Your task to perform on an android device: change alarm snooze length Image 0: 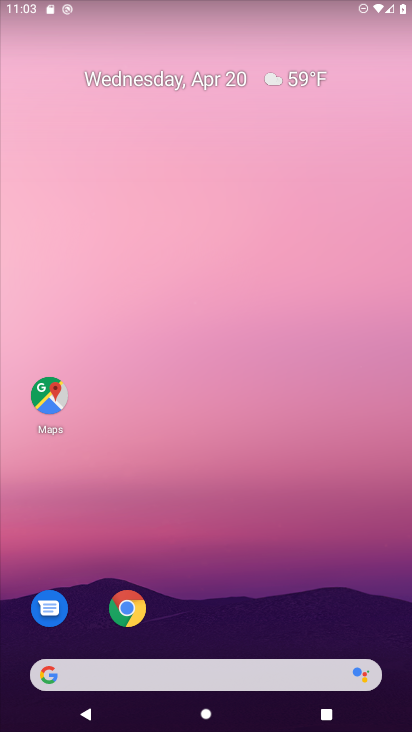
Step 0: drag from (273, 333) to (273, 129)
Your task to perform on an android device: change alarm snooze length Image 1: 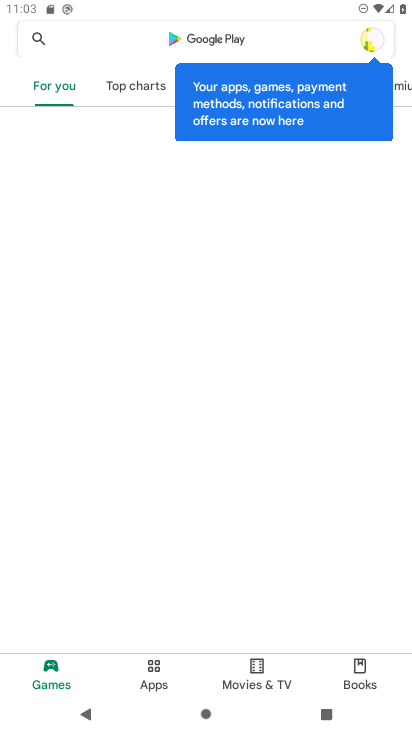
Step 1: press home button
Your task to perform on an android device: change alarm snooze length Image 2: 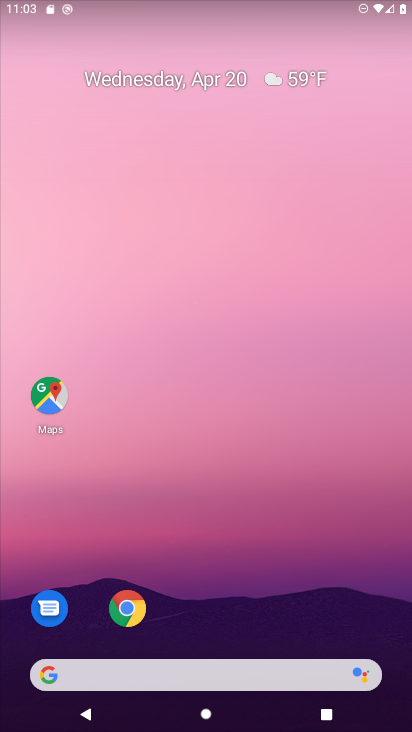
Step 2: drag from (246, 528) to (246, 197)
Your task to perform on an android device: change alarm snooze length Image 3: 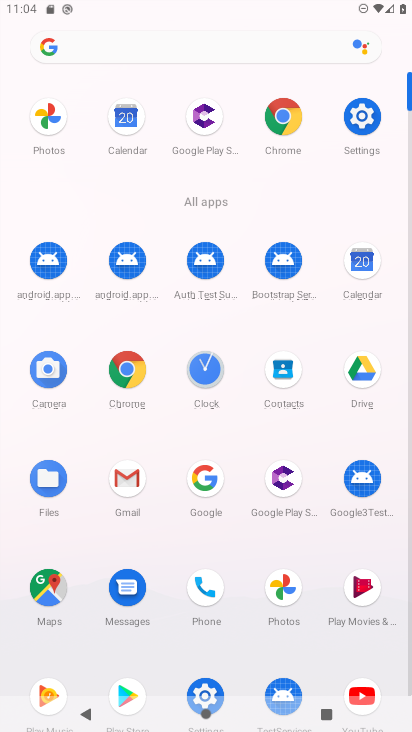
Step 3: click (206, 384)
Your task to perform on an android device: change alarm snooze length Image 4: 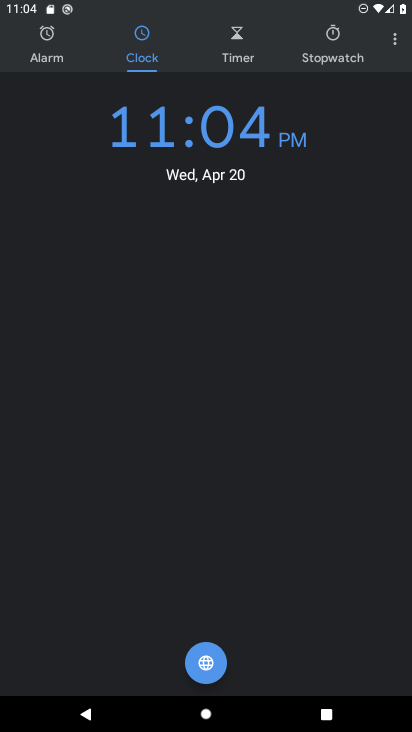
Step 4: click (390, 49)
Your task to perform on an android device: change alarm snooze length Image 5: 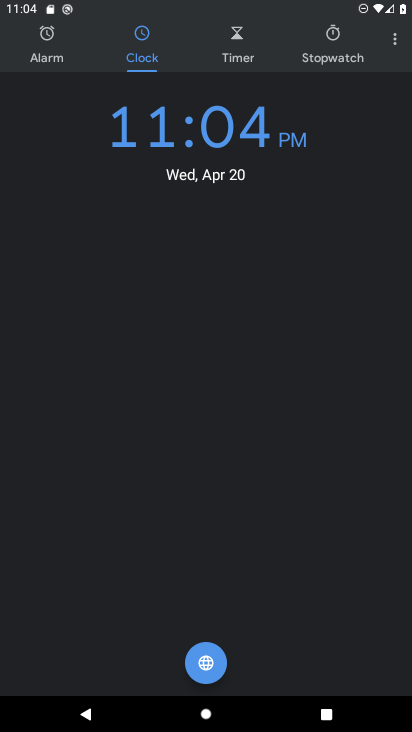
Step 5: click (387, 37)
Your task to perform on an android device: change alarm snooze length Image 6: 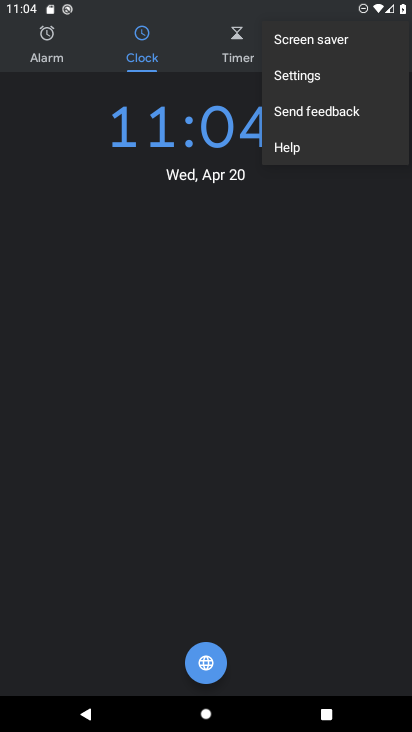
Step 6: click (349, 77)
Your task to perform on an android device: change alarm snooze length Image 7: 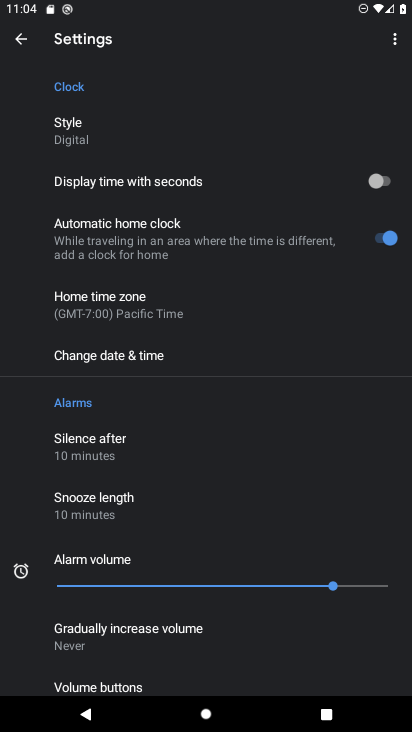
Step 7: click (177, 513)
Your task to perform on an android device: change alarm snooze length Image 8: 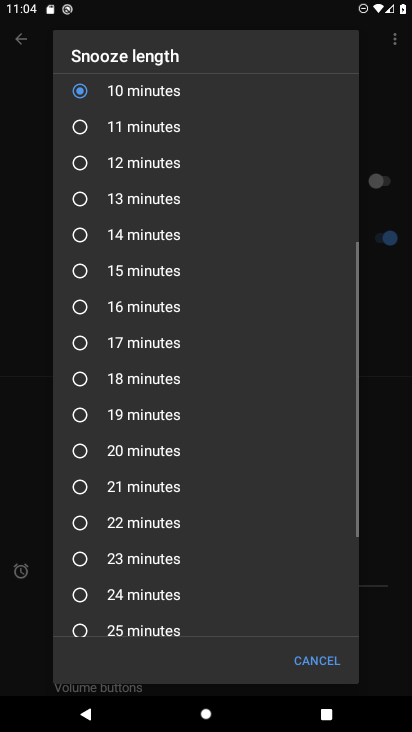
Step 8: click (162, 124)
Your task to perform on an android device: change alarm snooze length Image 9: 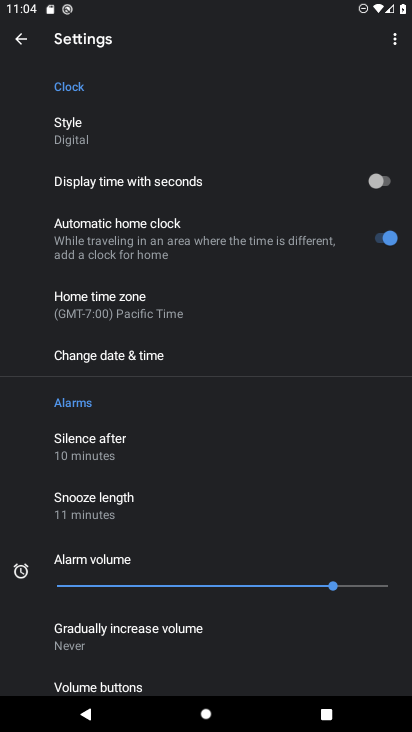
Step 9: task complete